Your task to perform on an android device: turn off picture-in-picture Image 0: 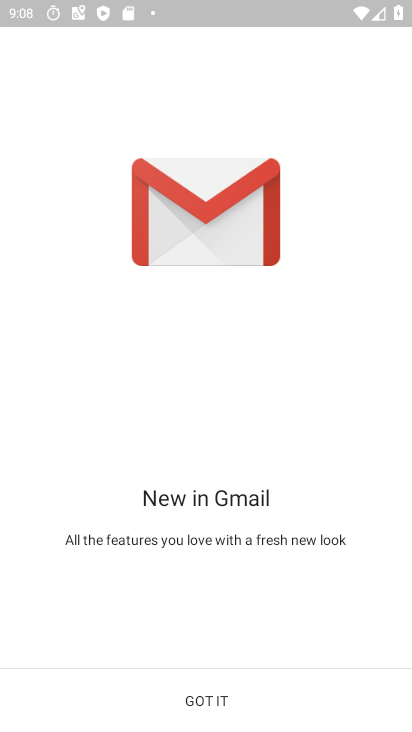
Step 0: press home button
Your task to perform on an android device: turn off picture-in-picture Image 1: 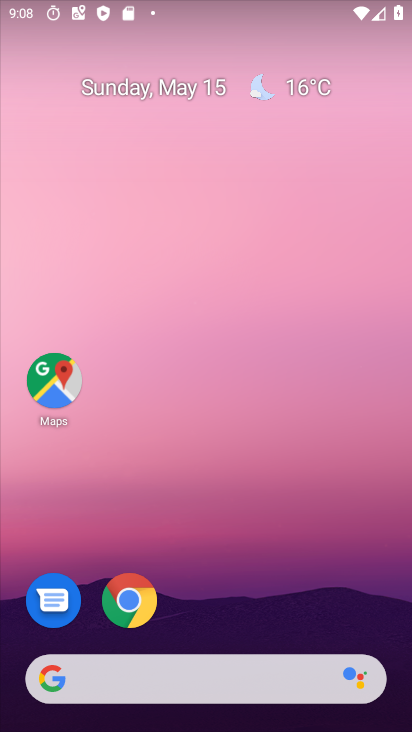
Step 1: click (127, 601)
Your task to perform on an android device: turn off picture-in-picture Image 2: 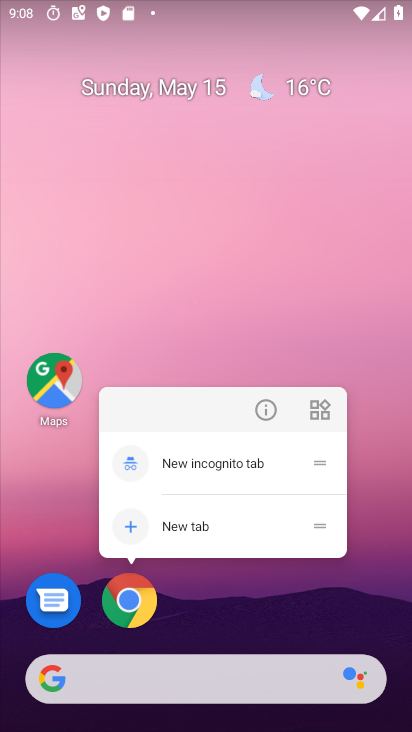
Step 2: click (261, 409)
Your task to perform on an android device: turn off picture-in-picture Image 3: 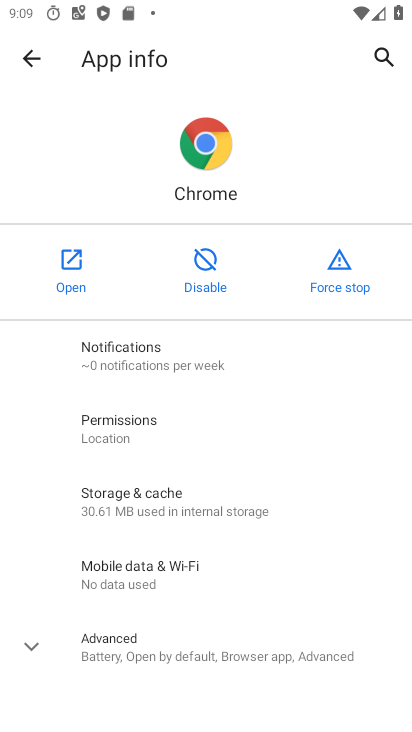
Step 3: click (132, 649)
Your task to perform on an android device: turn off picture-in-picture Image 4: 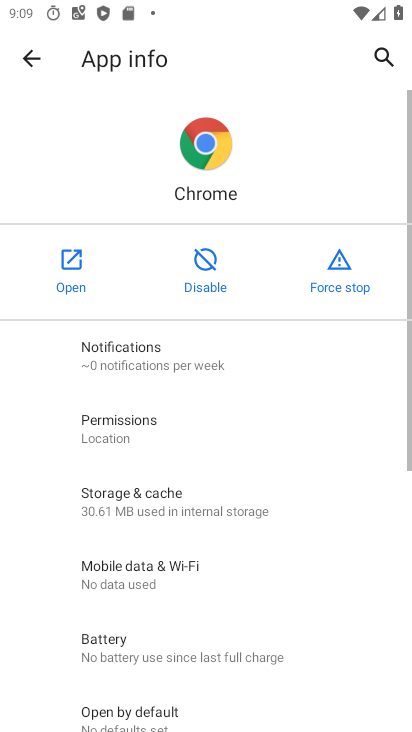
Step 4: drag from (271, 584) to (278, 99)
Your task to perform on an android device: turn off picture-in-picture Image 5: 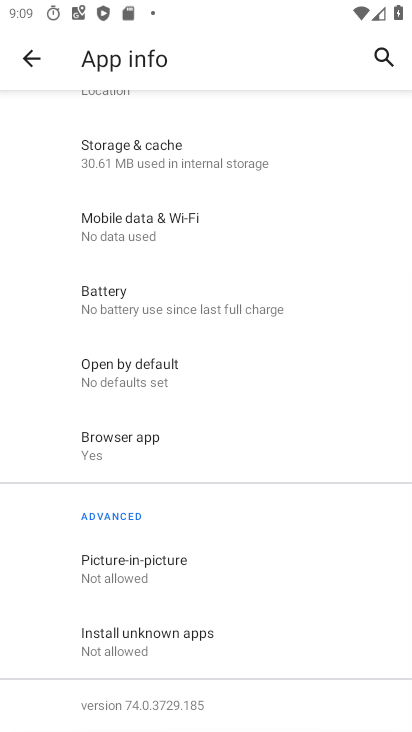
Step 5: click (112, 569)
Your task to perform on an android device: turn off picture-in-picture Image 6: 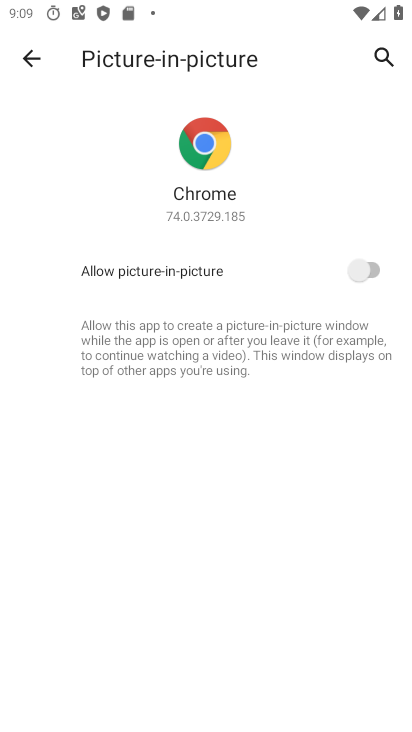
Step 6: task complete